Your task to perform on an android device: Open CNN.com Image 0: 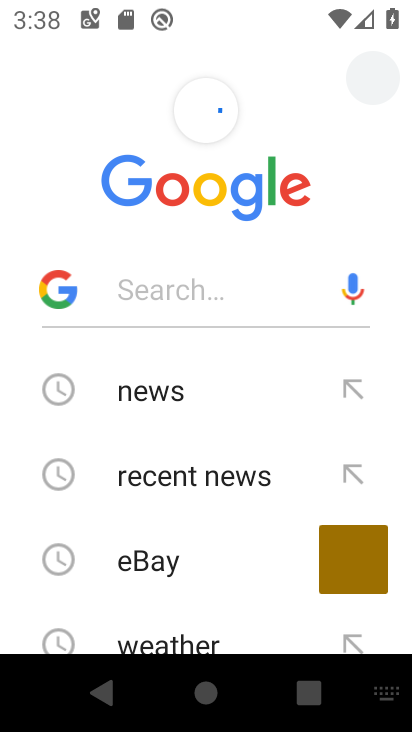
Step 0: press home button
Your task to perform on an android device: Open CNN.com Image 1: 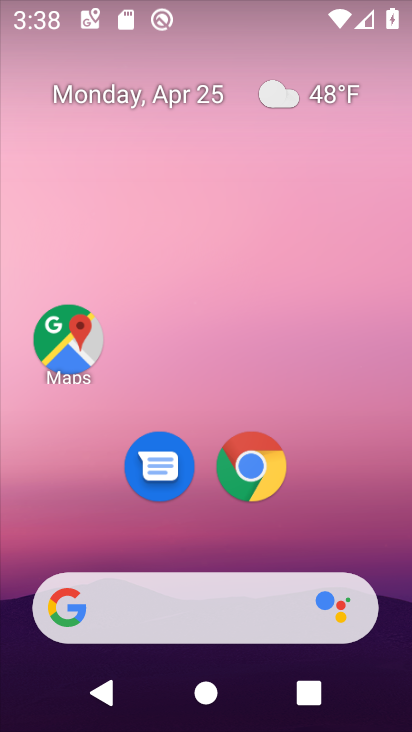
Step 1: click (281, 485)
Your task to perform on an android device: Open CNN.com Image 2: 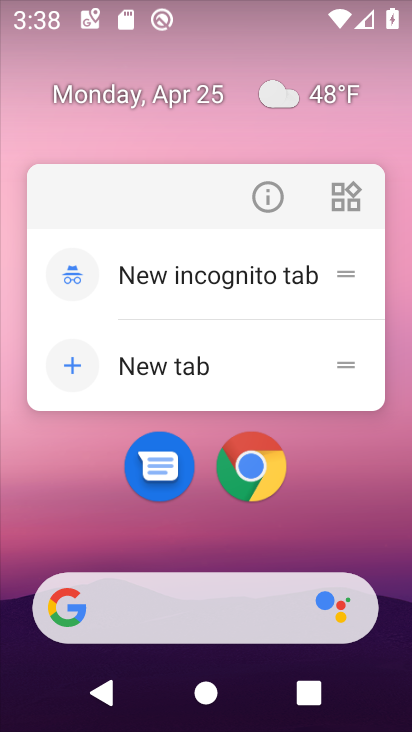
Step 2: click (261, 206)
Your task to perform on an android device: Open CNN.com Image 3: 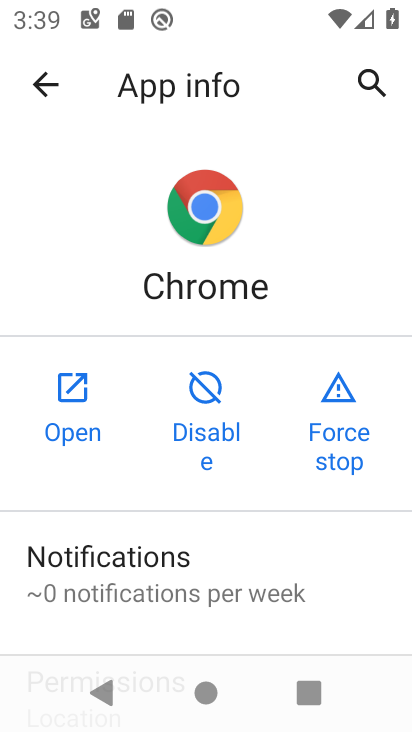
Step 3: click (77, 436)
Your task to perform on an android device: Open CNN.com Image 4: 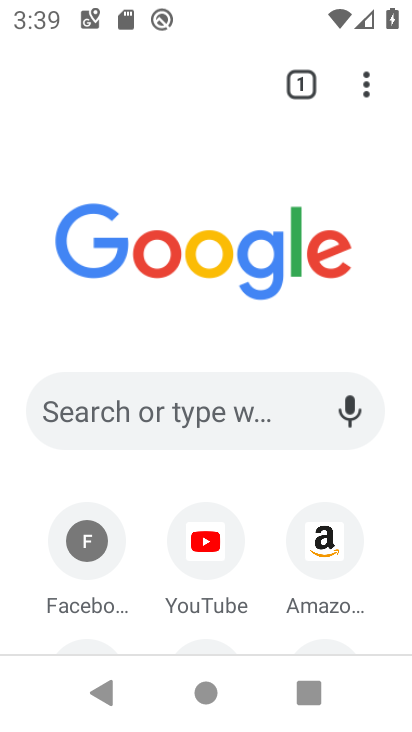
Step 4: click (181, 417)
Your task to perform on an android device: Open CNN.com Image 5: 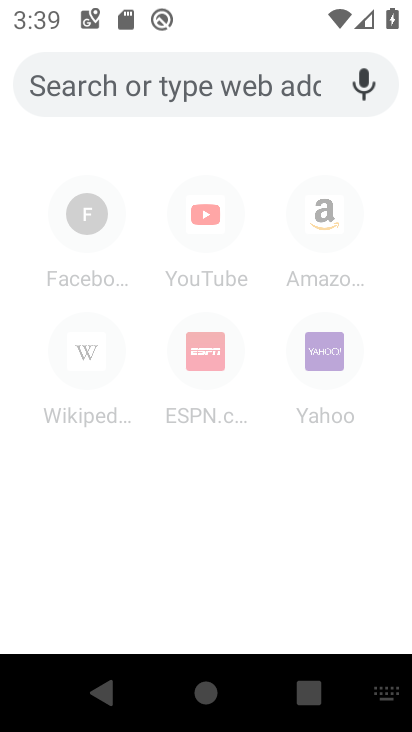
Step 5: type "CNN.com"
Your task to perform on an android device: Open CNN.com Image 6: 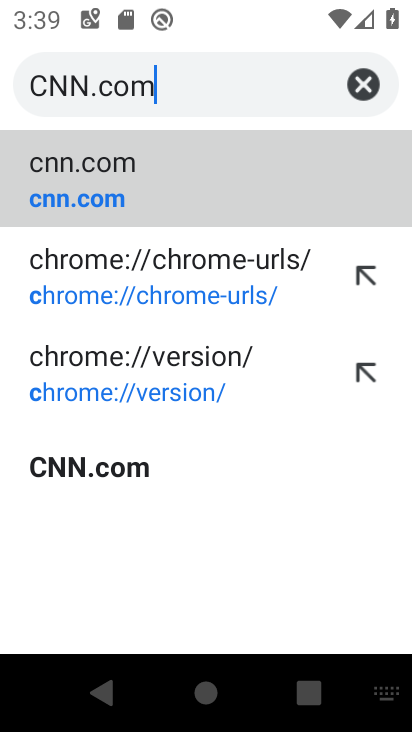
Step 6: type ""
Your task to perform on an android device: Open CNN.com Image 7: 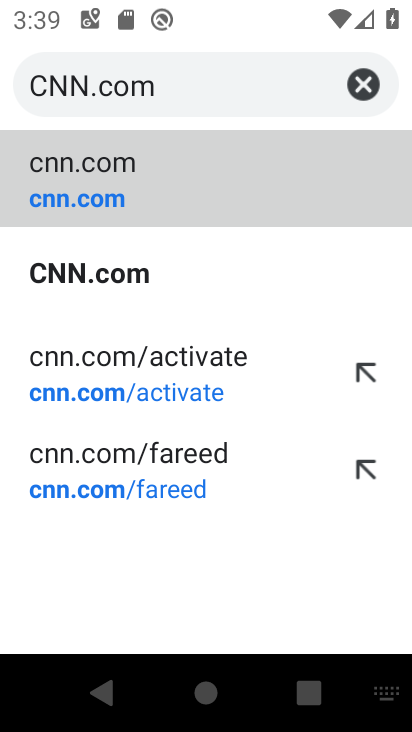
Step 7: click (162, 189)
Your task to perform on an android device: Open CNN.com Image 8: 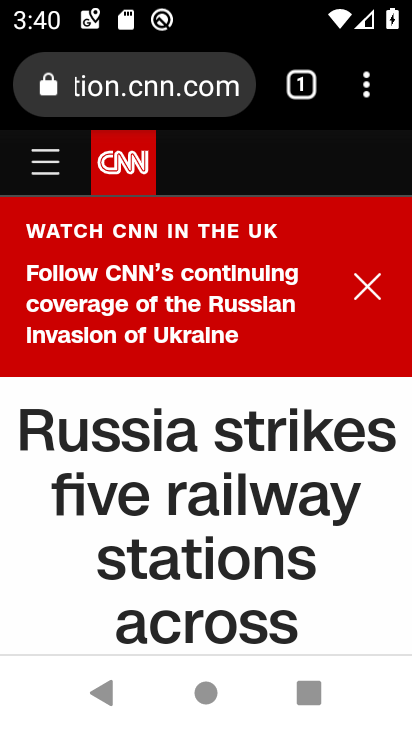
Step 8: task complete